Your task to perform on an android device: Open my contact list Image 0: 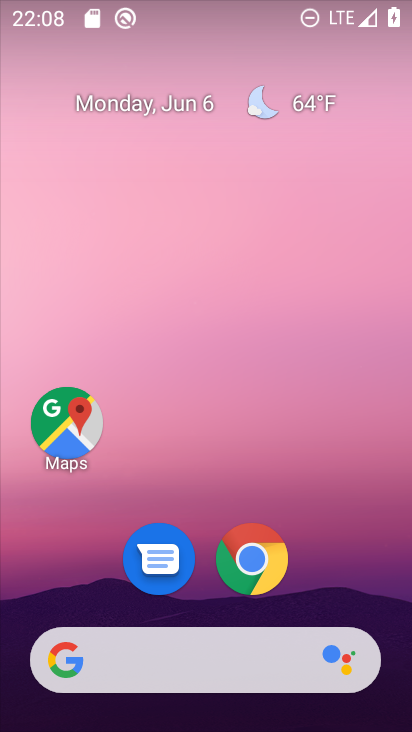
Step 0: drag from (191, 726) to (191, 127)
Your task to perform on an android device: Open my contact list Image 1: 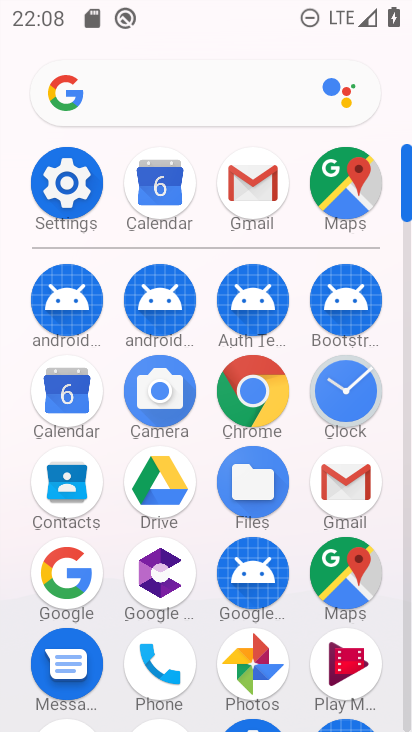
Step 1: click (66, 478)
Your task to perform on an android device: Open my contact list Image 2: 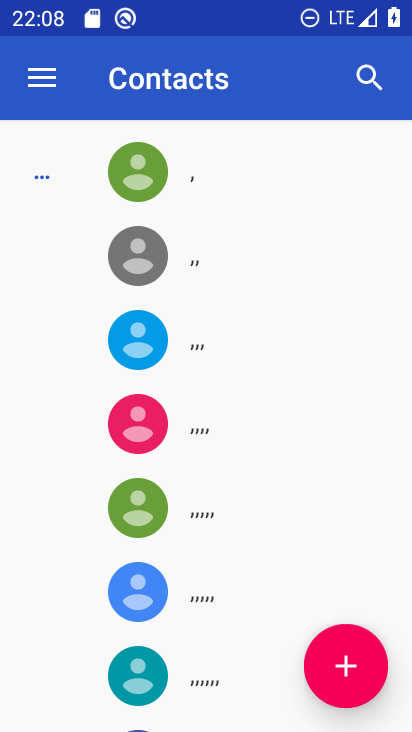
Step 2: task complete